Your task to perform on an android device: turn off location history Image 0: 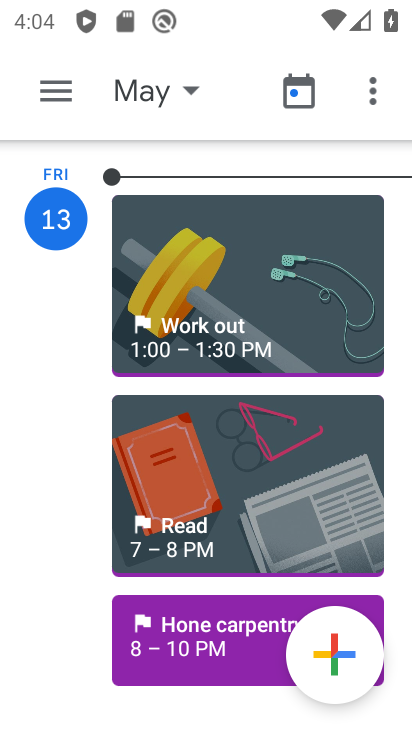
Step 0: press home button
Your task to perform on an android device: turn off location history Image 1: 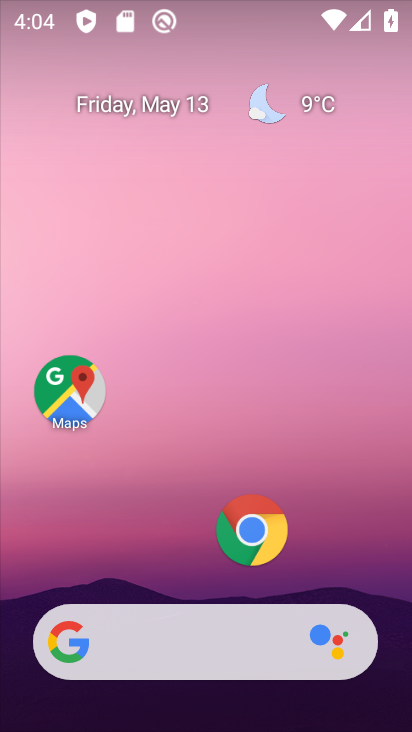
Step 1: drag from (184, 586) to (236, 64)
Your task to perform on an android device: turn off location history Image 2: 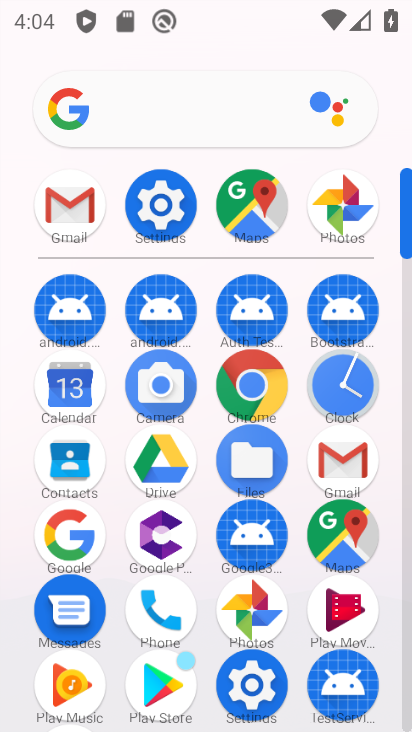
Step 2: click (253, 675)
Your task to perform on an android device: turn off location history Image 3: 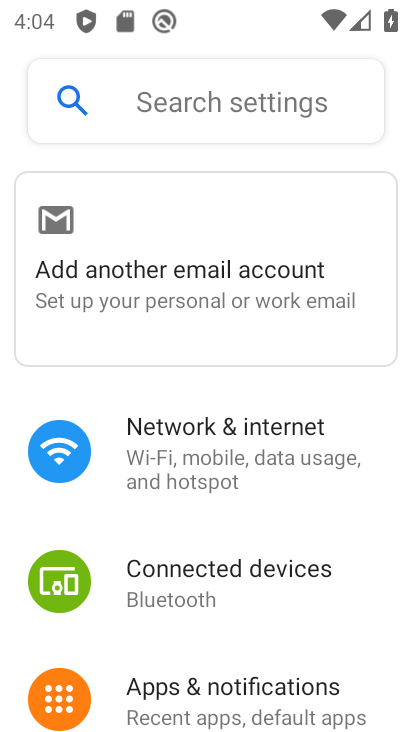
Step 3: drag from (256, 681) to (259, 197)
Your task to perform on an android device: turn off location history Image 4: 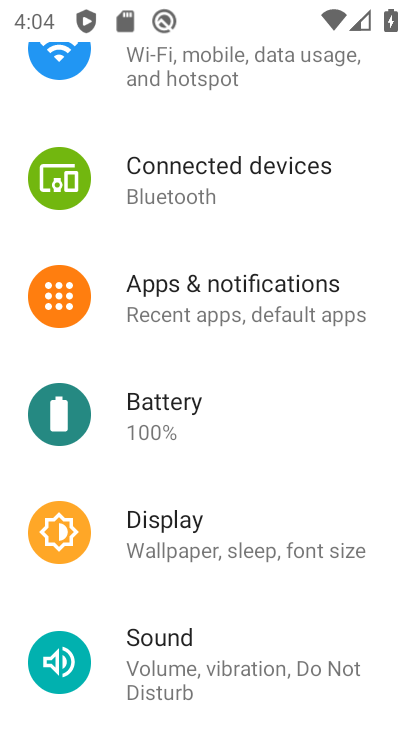
Step 4: drag from (204, 649) to (212, 301)
Your task to perform on an android device: turn off location history Image 5: 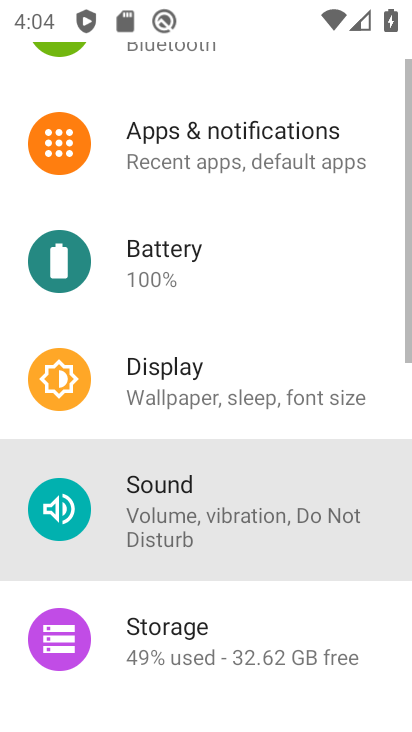
Step 5: click (210, 128)
Your task to perform on an android device: turn off location history Image 6: 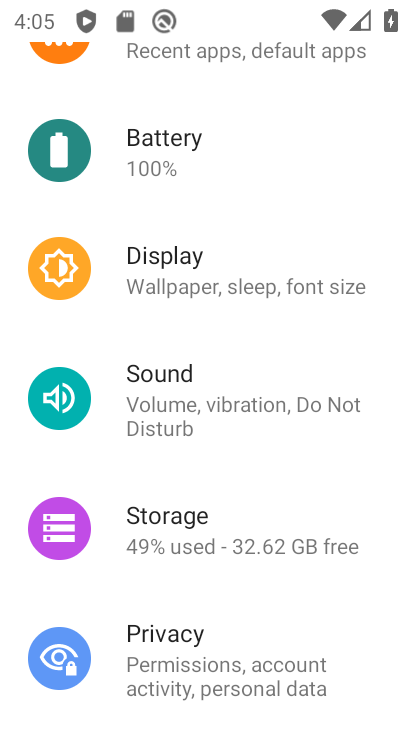
Step 6: drag from (217, 649) to (227, 262)
Your task to perform on an android device: turn off location history Image 7: 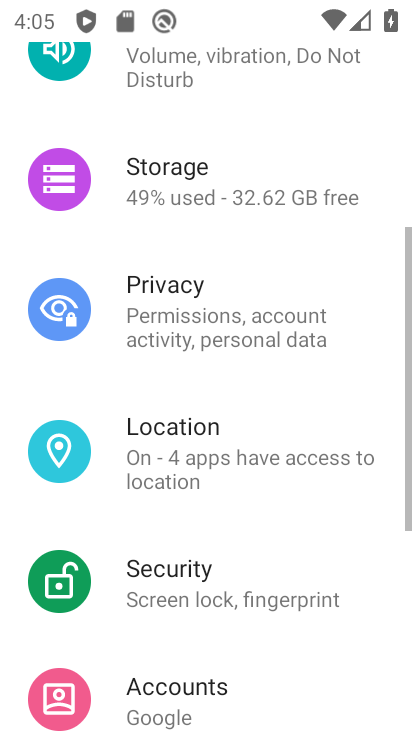
Step 7: click (227, 132)
Your task to perform on an android device: turn off location history Image 8: 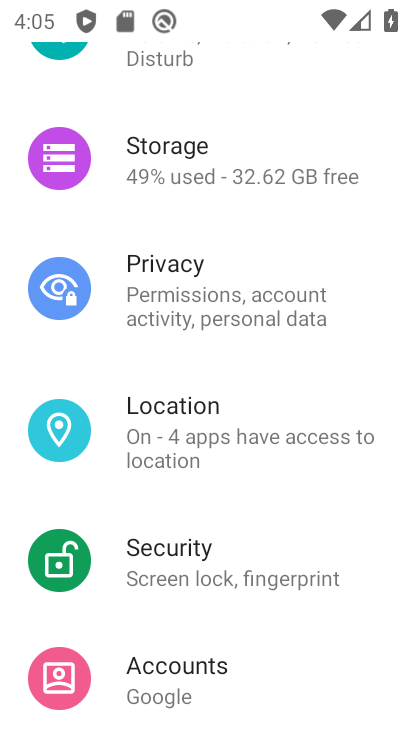
Step 8: click (231, 414)
Your task to perform on an android device: turn off location history Image 9: 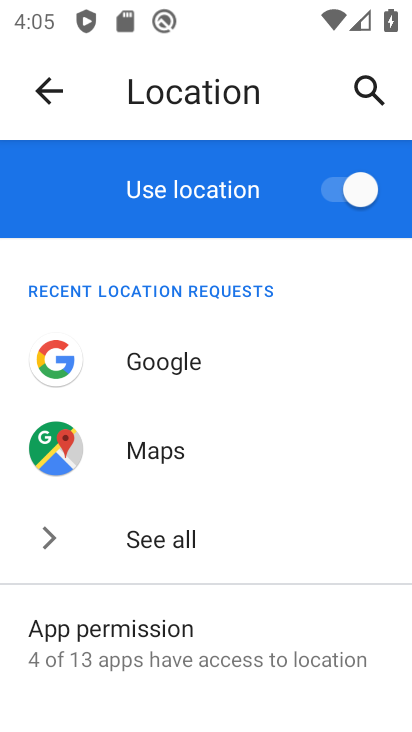
Step 9: drag from (204, 676) to (209, 446)
Your task to perform on an android device: turn off location history Image 10: 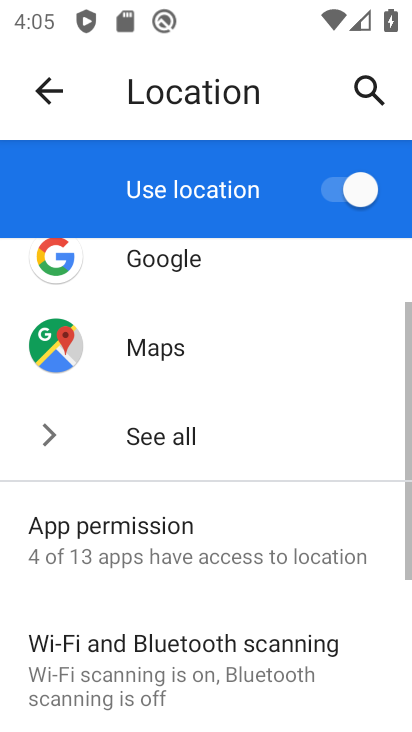
Step 10: drag from (211, 382) to (212, 163)
Your task to perform on an android device: turn off location history Image 11: 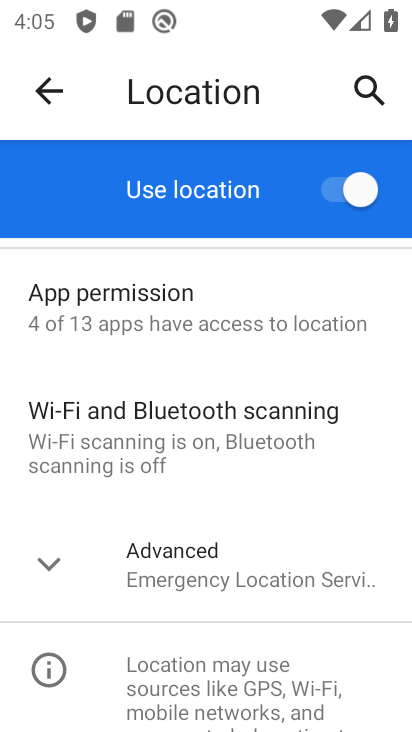
Step 11: click (47, 563)
Your task to perform on an android device: turn off location history Image 12: 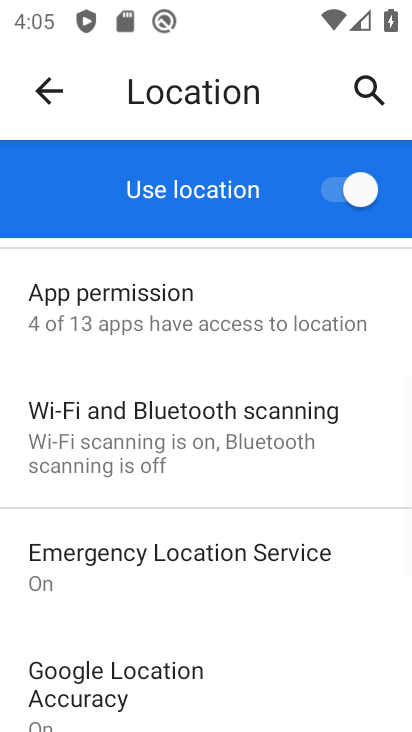
Step 12: drag from (196, 690) to (197, 249)
Your task to perform on an android device: turn off location history Image 13: 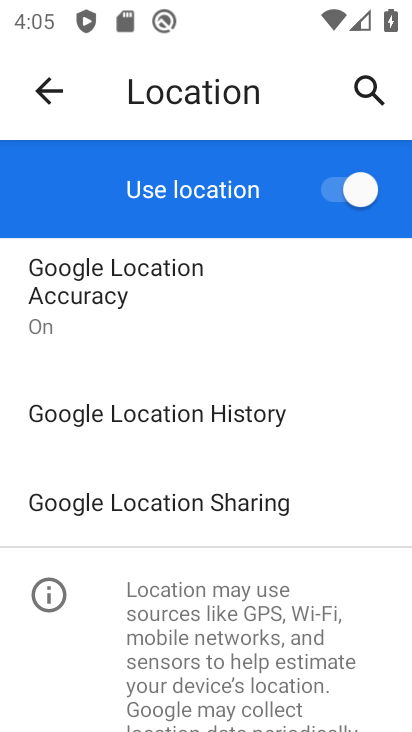
Step 13: click (302, 408)
Your task to perform on an android device: turn off location history Image 14: 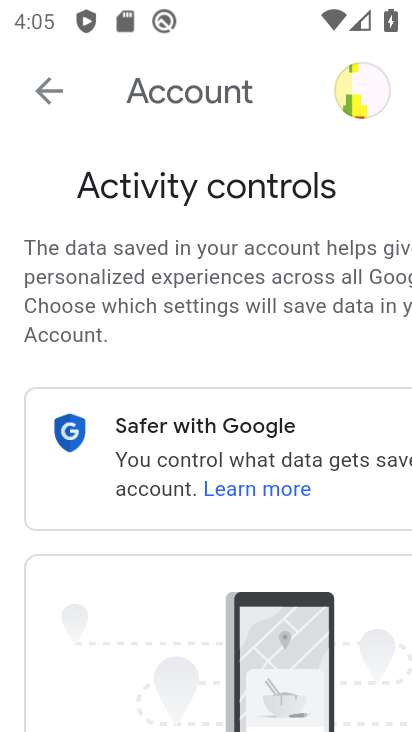
Step 14: task complete